Your task to perform on an android device: delete the emails in spam in the gmail app Image 0: 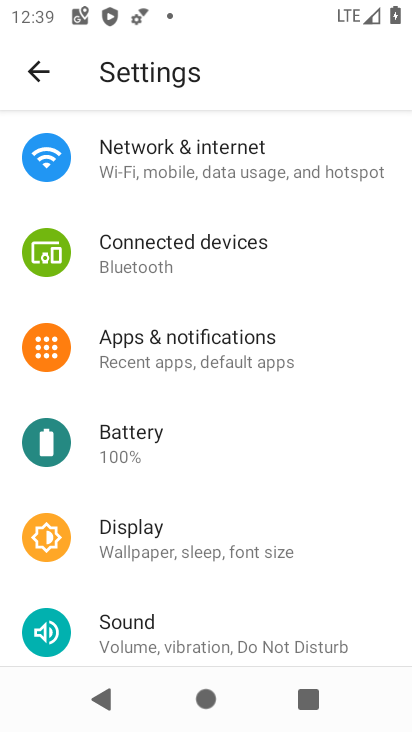
Step 0: press home button
Your task to perform on an android device: delete the emails in spam in the gmail app Image 1: 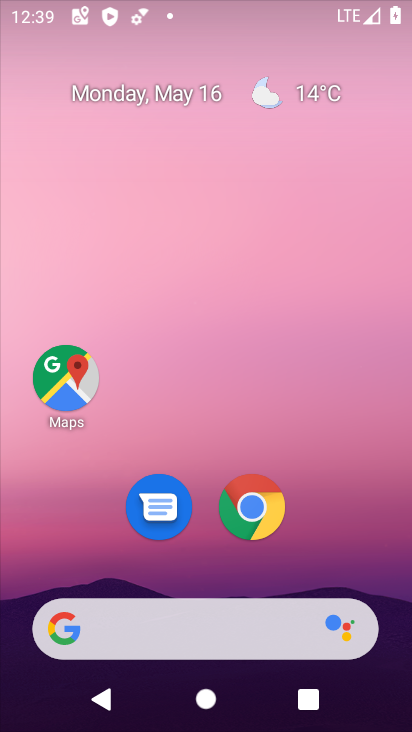
Step 1: drag from (289, 365) to (224, 35)
Your task to perform on an android device: delete the emails in spam in the gmail app Image 2: 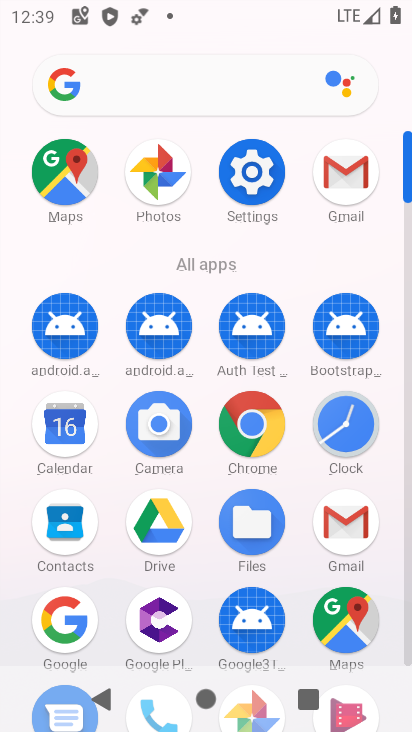
Step 2: click (334, 188)
Your task to perform on an android device: delete the emails in spam in the gmail app Image 3: 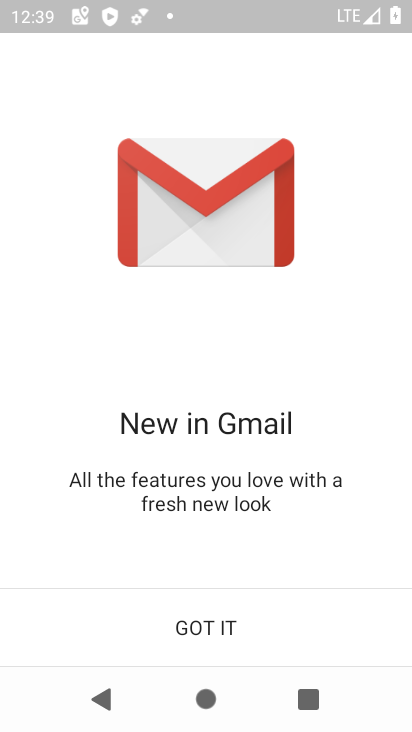
Step 3: click (203, 616)
Your task to perform on an android device: delete the emails in spam in the gmail app Image 4: 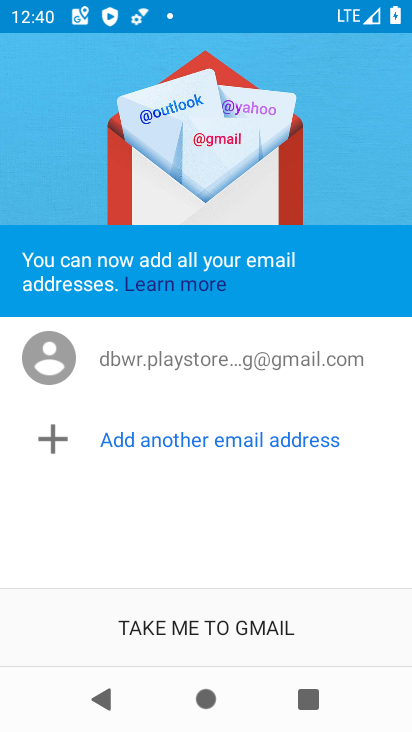
Step 4: click (240, 626)
Your task to perform on an android device: delete the emails in spam in the gmail app Image 5: 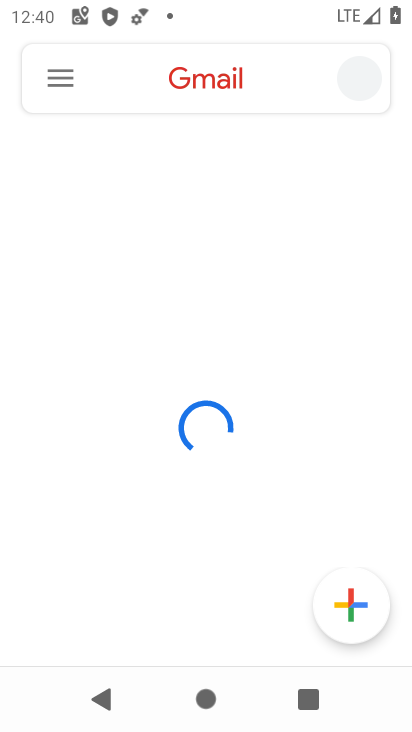
Step 5: click (64, 80)
Your task to perform on an android device: delete the emails in spam in the gmail app Image 6: 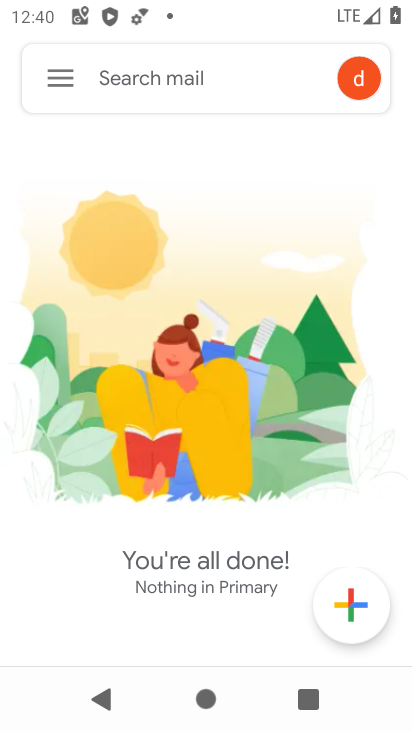
Step 6: click (58, 77)
Your task to perform on an android device: delete the emails in spam in the gmail app Image 7: 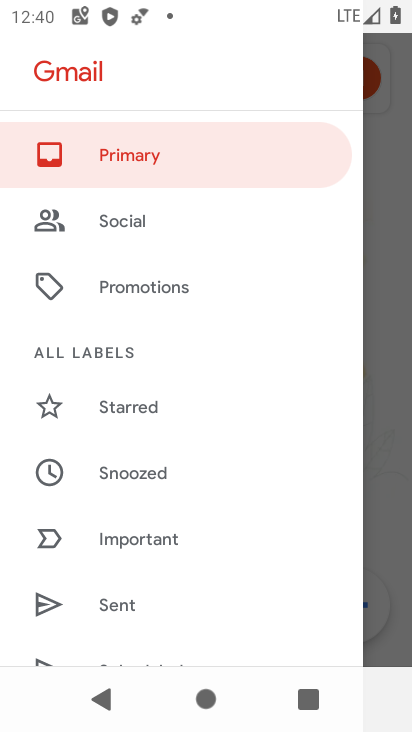
Step 7: drag from (167, 590) to (169, 77)
Your task to perform on an android device: delete the emails in spam in the gmail app Image 8: 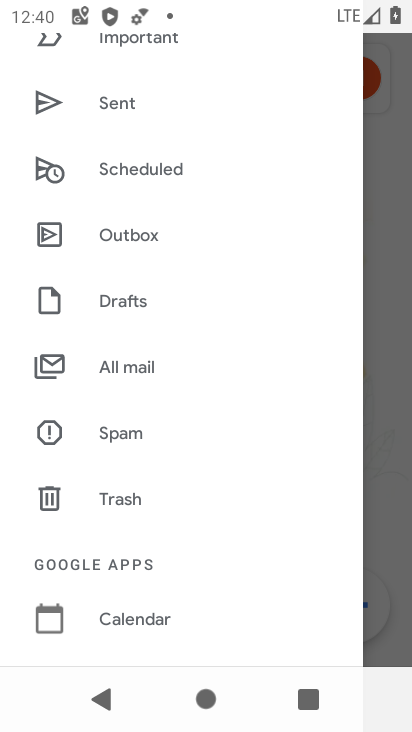
Step 8: click (157, 429)
Your task to perform on an android device: delete the emails in spam in the gmail app Image 9: 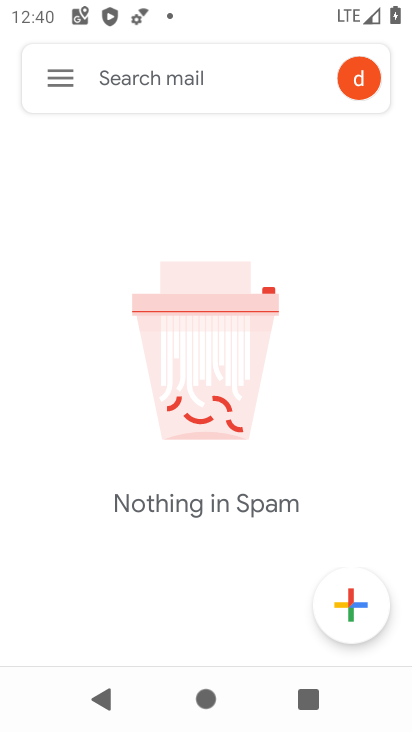
Step 9: task complete